Your task to perform on an android device: open app "VLC for Android" (install if not already installed) Image 0: 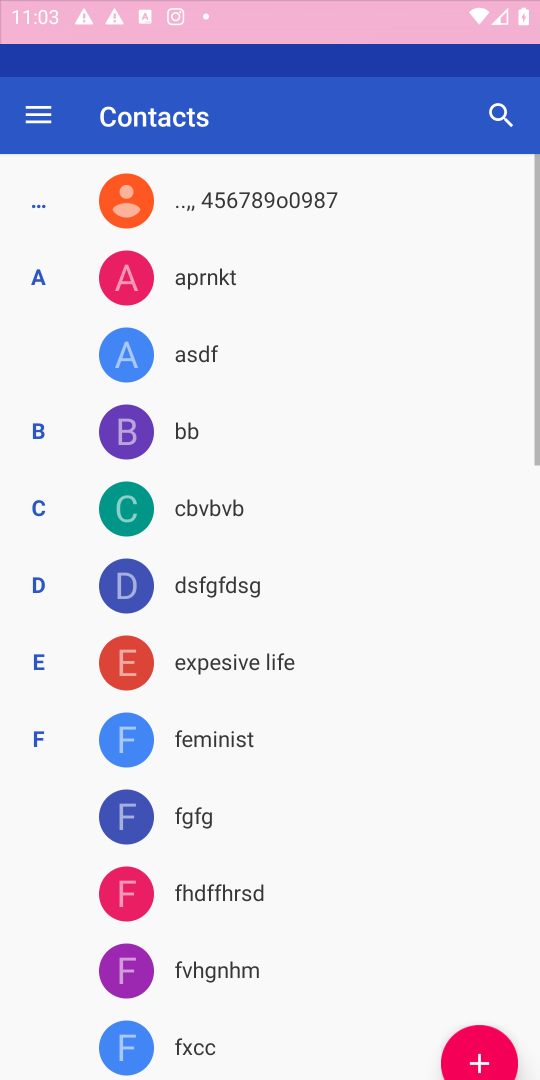
Step 0: press home button
Your task to perform on an android device: open app "VLC for Android" (install if not already installed) Image 1: 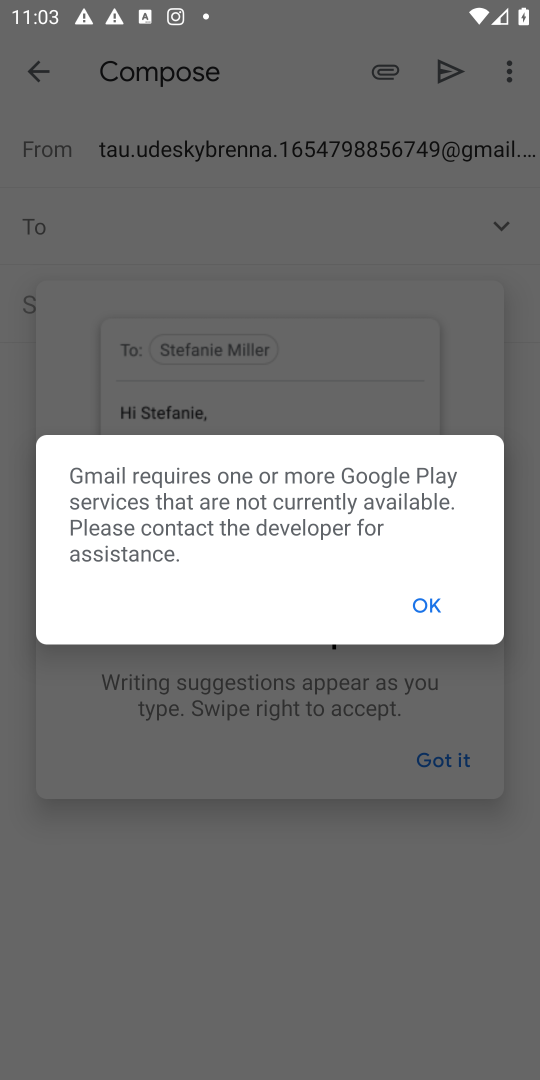
Step 1: press home button
Your task to perform on an android device: open app "VLC for Android" (install if not already installed) Image 2: 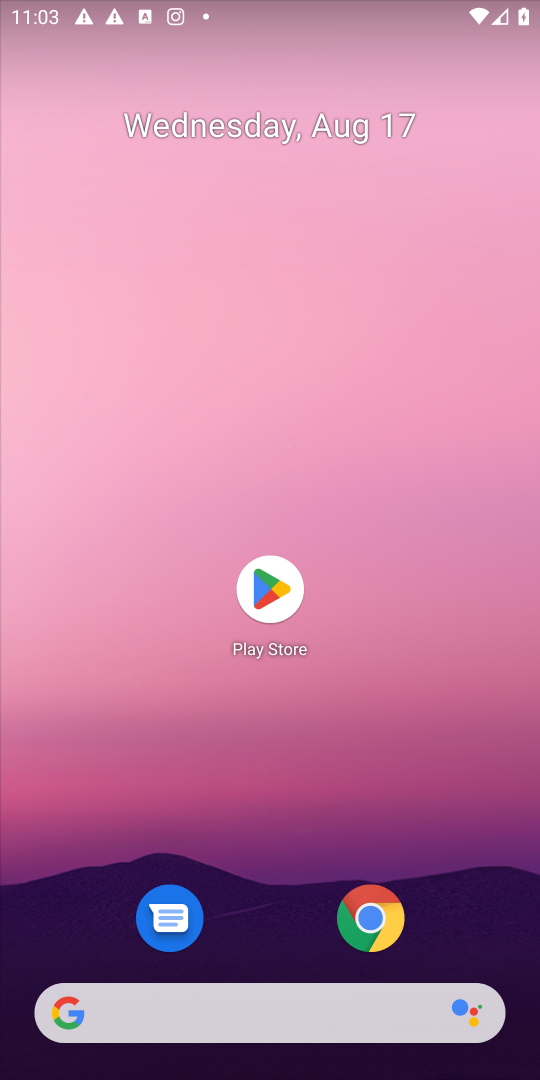
Step 2: click (273, 565)
Your task to perform on an android device: open app "VLC for Android" (install if not already installed) Image 3: 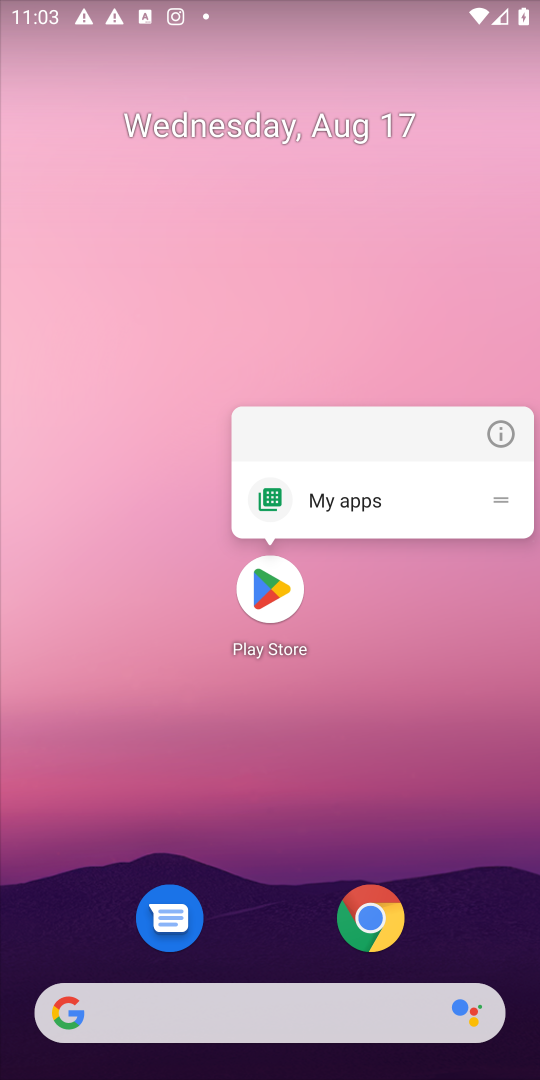
Step 3: click (273, 565)
Your task to perform on an android device: open app "VLC for Android" (install if not already installed) Image 4: 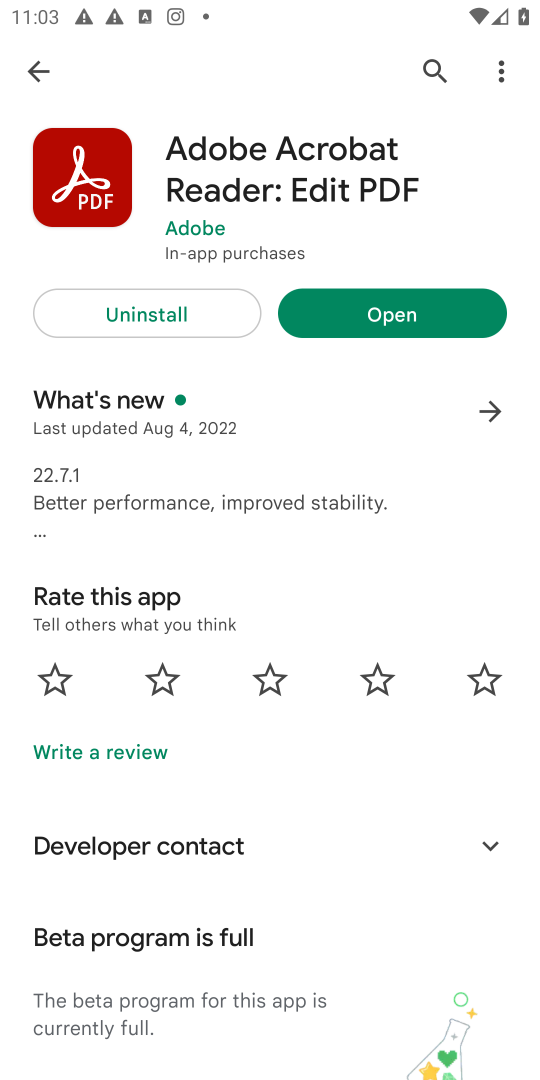
Step 4: click (432, 62)
Your task to perform on an android device: open app "VLC for Android" (install if not already installed) Image 5: 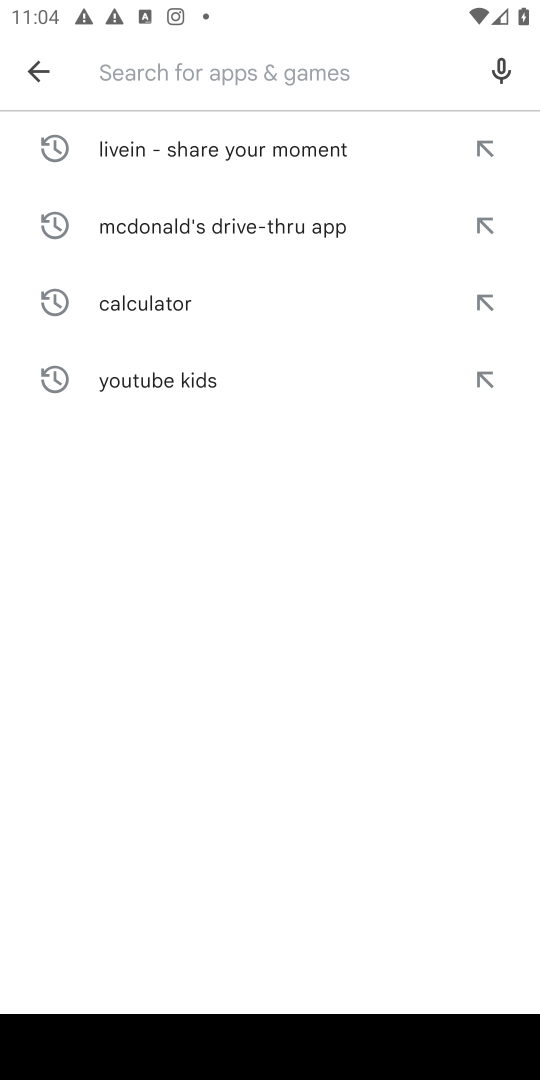
Step 5: type "VLC for Android"
Your task to perform on an android device: open app "VLC for Android" (install if not already installed) Image 6: 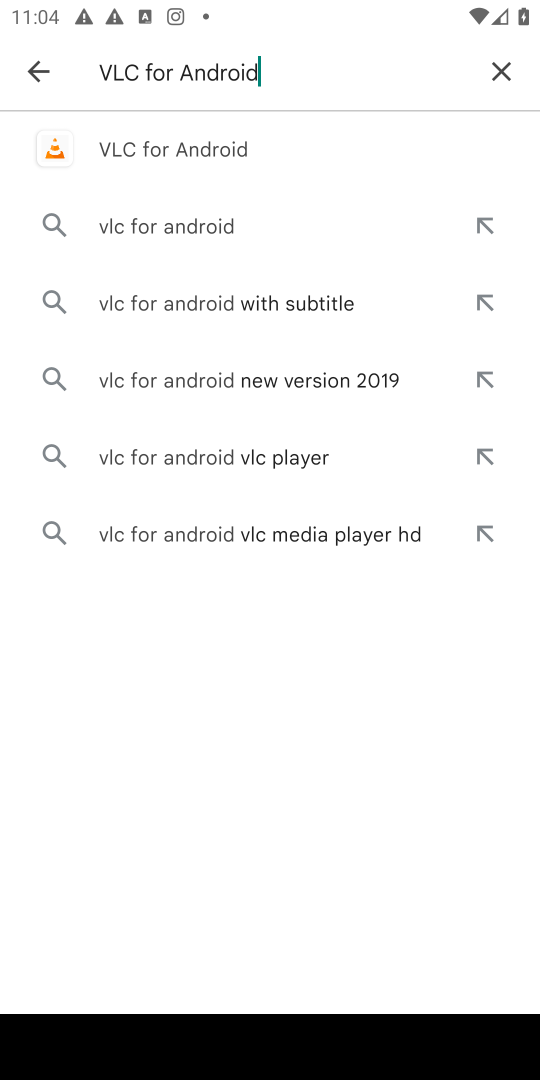
Step 6: click (203, 153)
Your task to perform on an android device: open app "VLC for Android" (install if not already installed) Image 7: 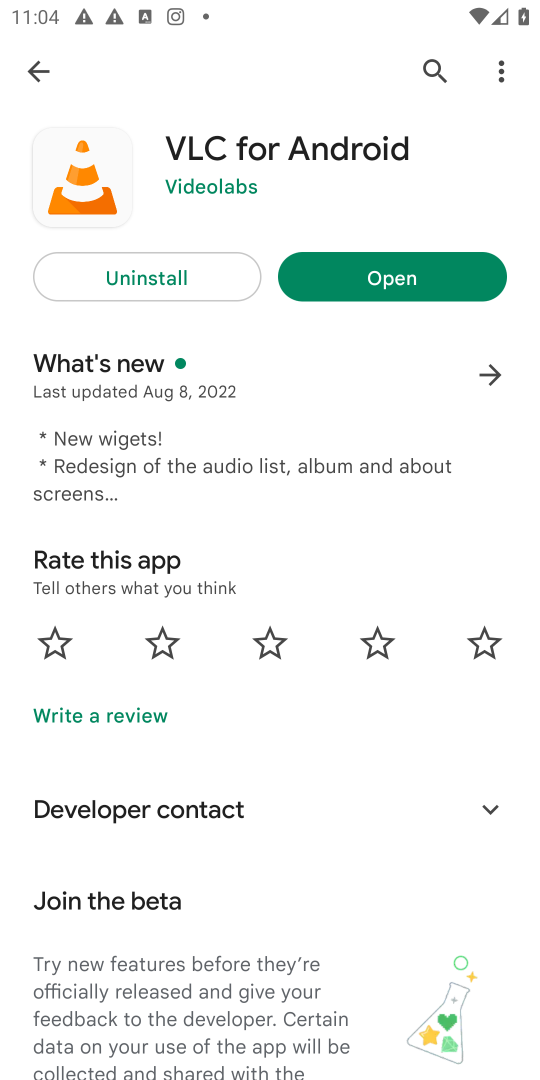
Step 7: click (386, 285)
Your task to perform on an android device: open app "VLC for Android" (install if not already installed) Image 8: 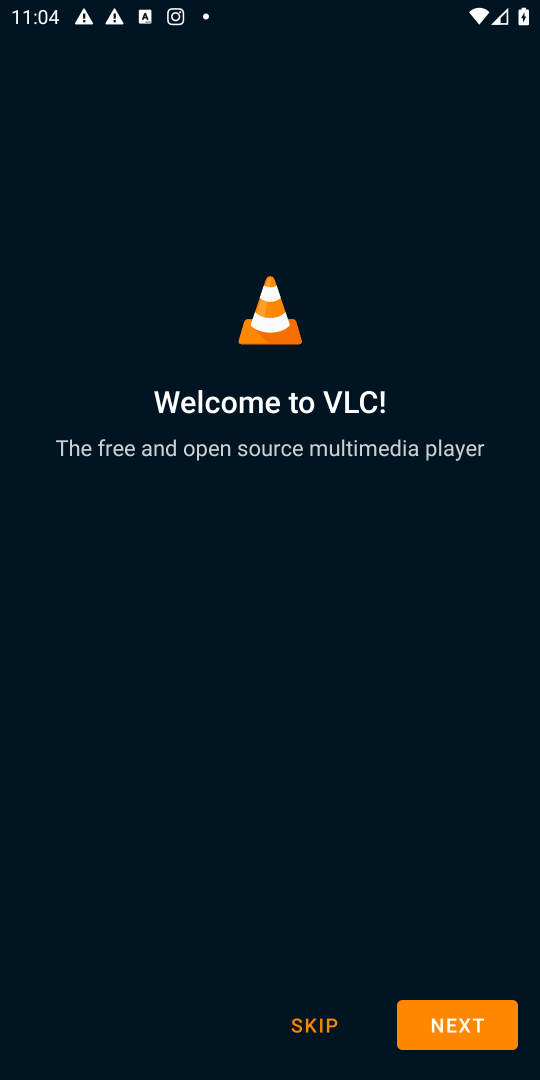
Step 8: task complete